Your task to perform on an android device: Open the phone app and click the voicemail tab. Image 0: 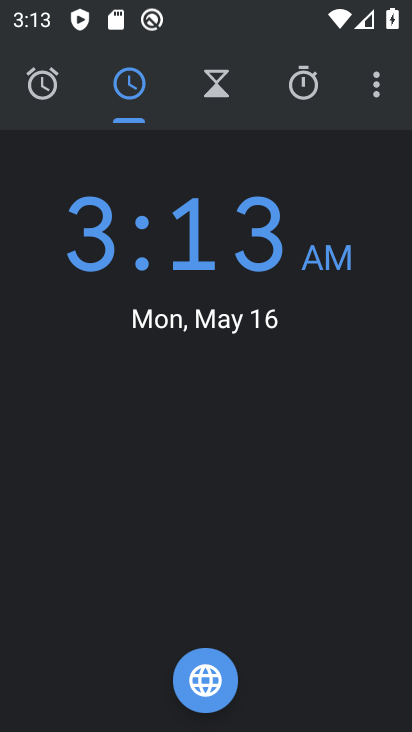
Step 0: press home button
Your task to perform on an android device: Open the phone app and click the voicemail tab. Image 1: 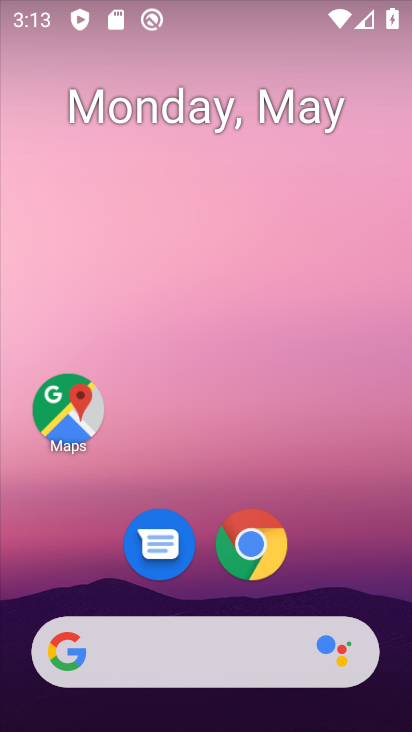
Step 1: drag from (259, 615) to (255, 159)
Your task to perform on an android device: Open the phone app and click the voicemail tab. Image 2: 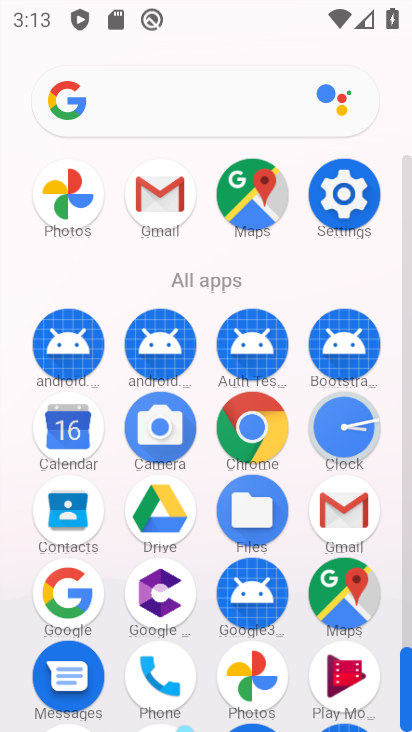
Step 2: click (167, 678)
Your task to perform on an android device: Open the phone app and click the voicemail tab. Image 3: 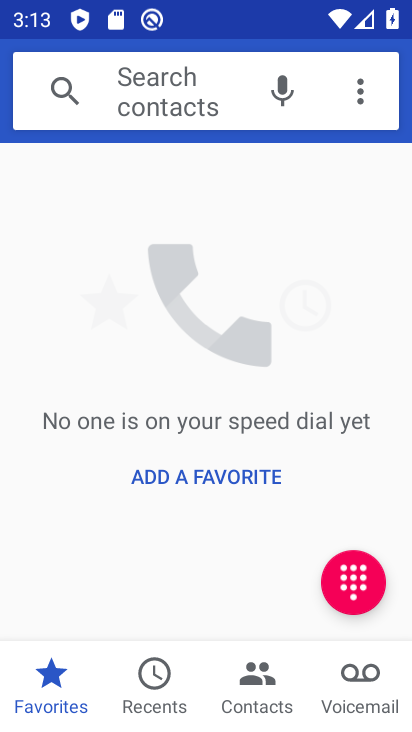
Step 3: click (379, 672)
Your task to perform on an android device: Open the phone app and click the voicemail tab. Image 4: 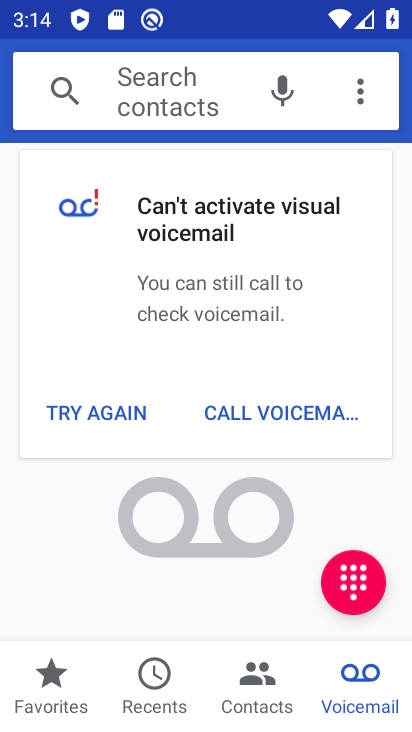
Step 4: task complete